Your task to perform on an android device: Go to ESPN.com Image 0: 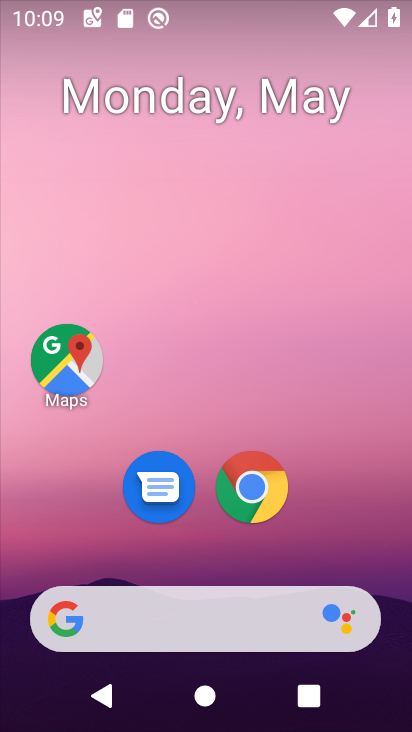
Step 0: click (231, 492)
Your task to perform on an android device: Go to ESPN.com Image 1: 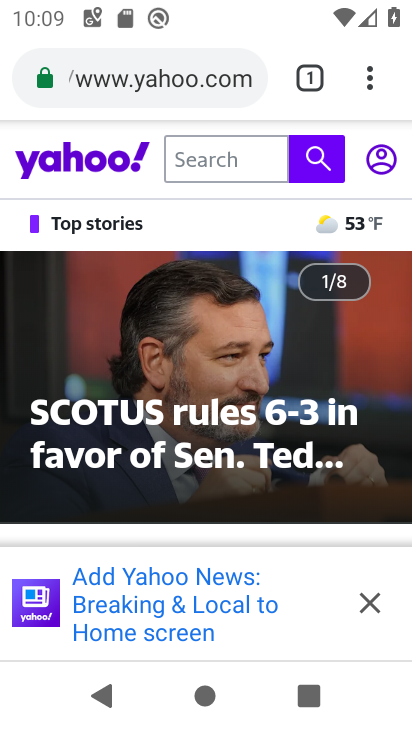
Step 1: click (147, 75)
Your task to perform on an android device: Go to ESPN.com Image 2: 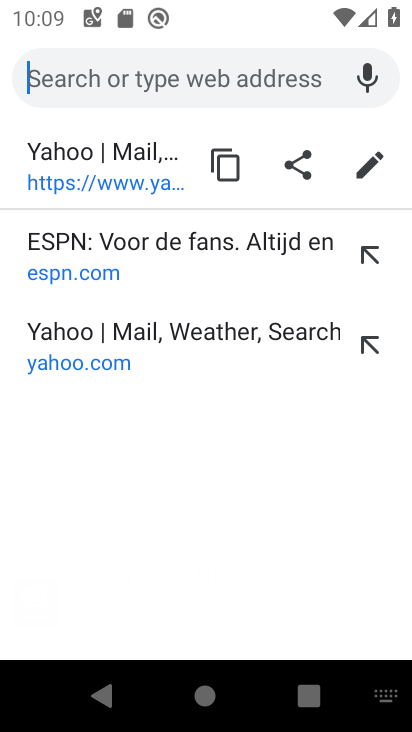
Step 2: type "ESPN.com"
Your task to perform on an android device: Go to ESPN.com Image 3: 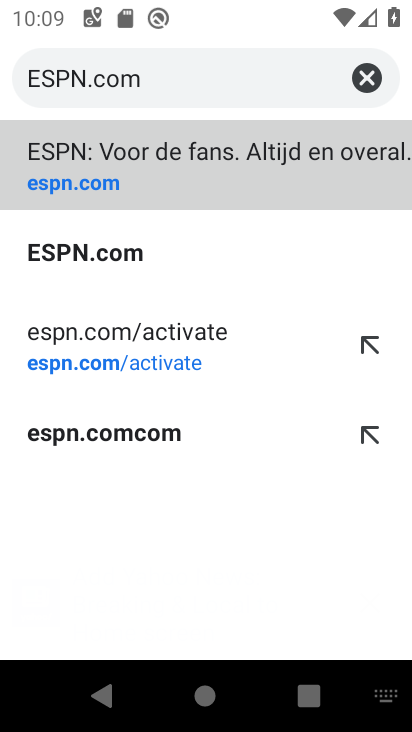
Step 3: click (73, 164)
Your task to perform on an android device: Go to ESPN.com Image 4: 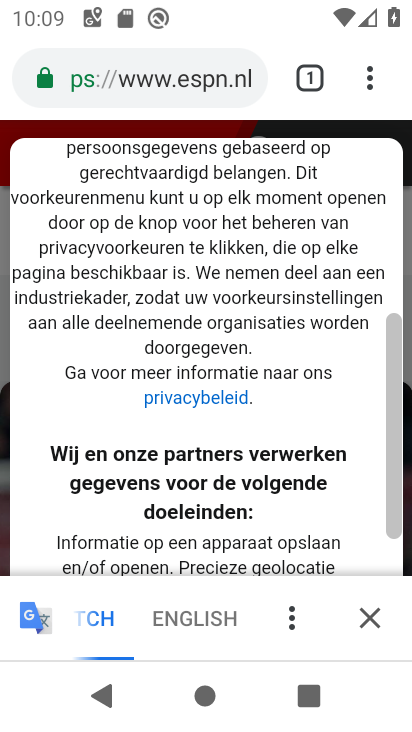
Step 4: task complete